Your task to perform on an android device: Add "logitech g502" to the cart on target Image 0: 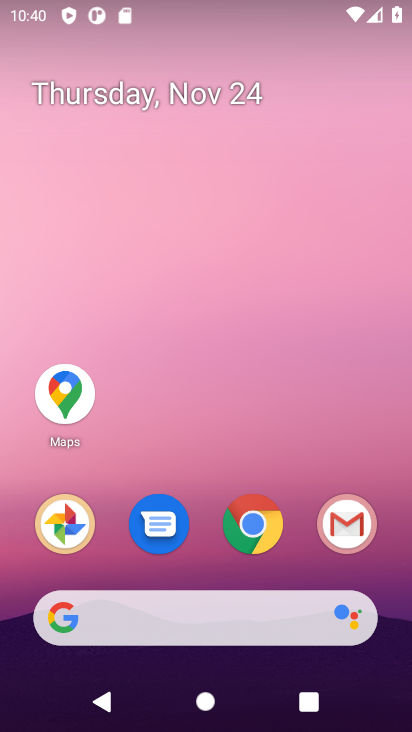
Step 0: click (254, 535)
Your task to perform on an android device: Add "logitech g502" to the cart on target Image 1: 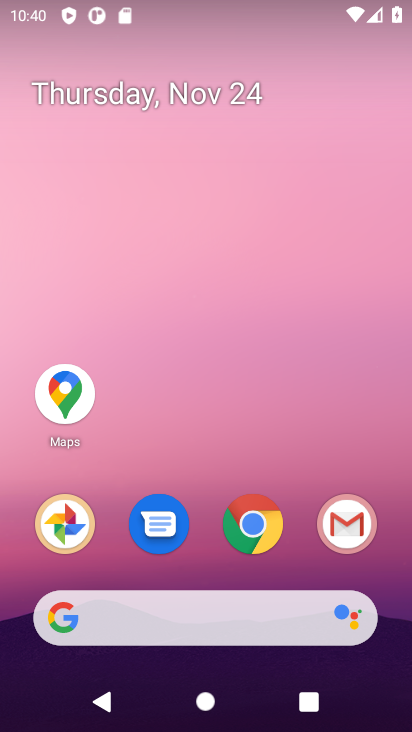
Step 1: click (254, 535)
Your task to perform on an android device: Add "logitech g502" to the cart on target Image 2: 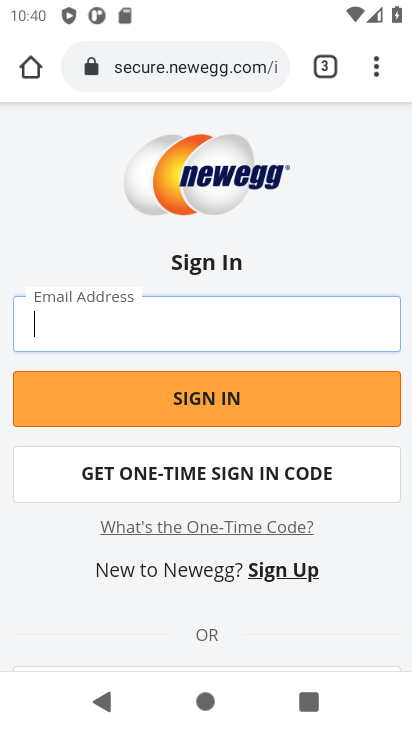
Step 2: click (166, 67)
Your task to perform on an android device: Add "logitech g502" to the cart on target Image 3: 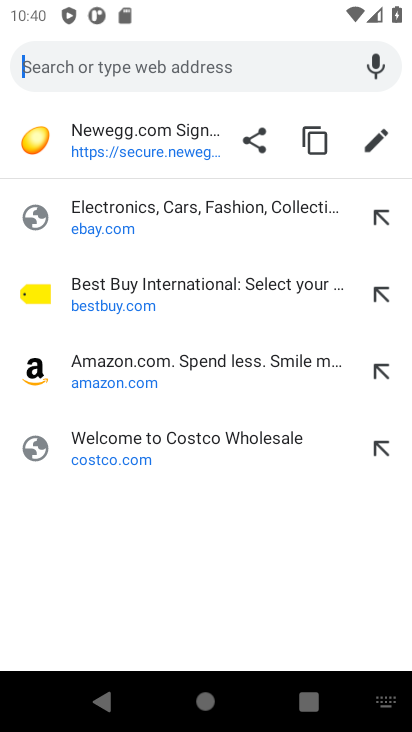
Step 3: type "target.com"
Your task to perform on an android device: Add "logitech g502" to the cart on target Image 4: 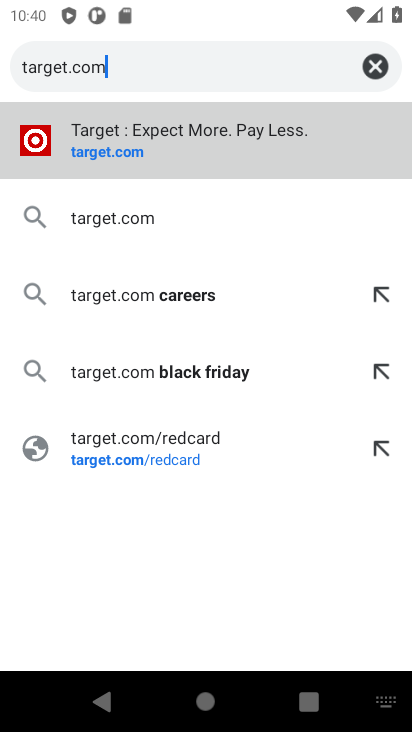
Step 4: click (72, 144)
Your task to perform on an android device: Add "logitech g502" to the cart on target Image 5: 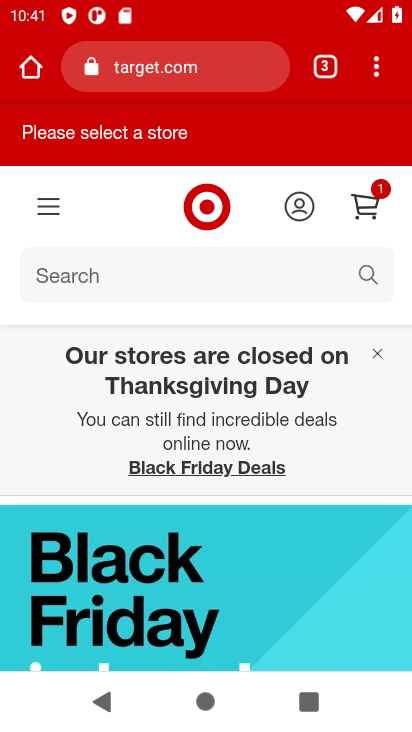
Step 5: click (349, 273)
Your task to perform on an android device: Add "logitech g502" to the cart on target Image 6: 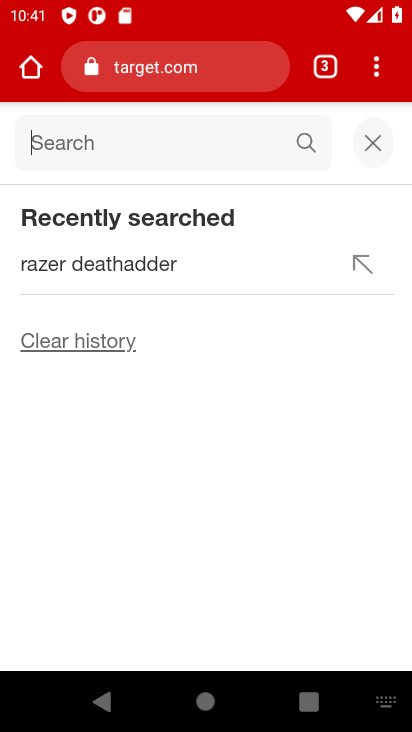
Step 6: type "logitech g502"
Your task to perform on an android device: Add "logitech g502" to the cart on target Image 7: 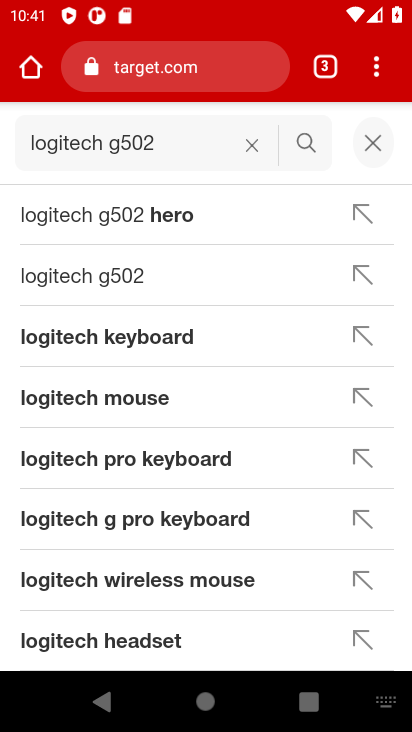
Step 7: click (62, 277)
Your task to perform on an android device: Add "logitech g502" to the cart on target Image 8: 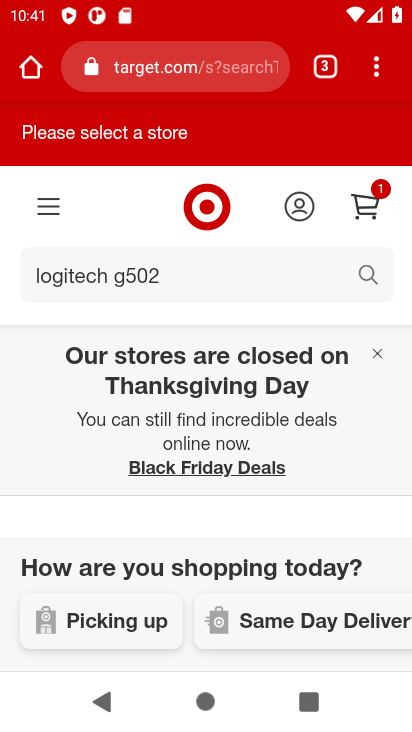
Step 8: drag from (127, 427) to (114, 157)
Your task to perform on an android device: Add "logitech g502" to the cart on target Image 9: 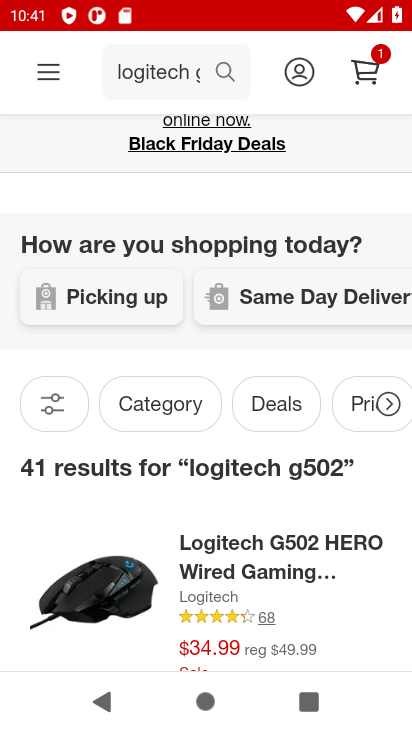
Step 9: drag from (93, 430) to (95, 202)
Your task to perform on an android device: Add "logitech g502" to the cart on target Image 10: 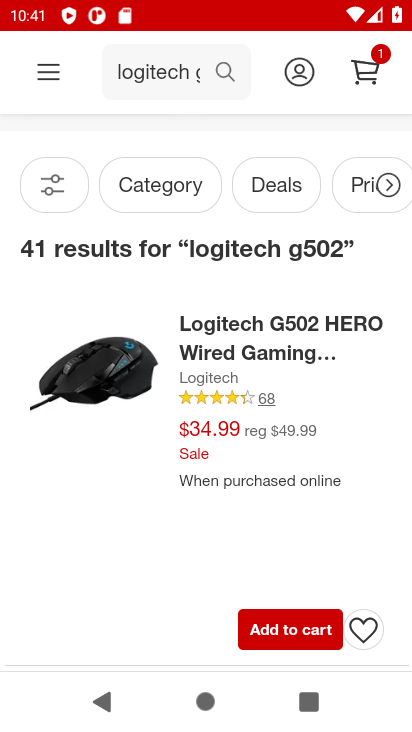
Step 10: click (285, 624)
Your task to perform on an android device: Add "logitech g502" to the cart on target Image 11: 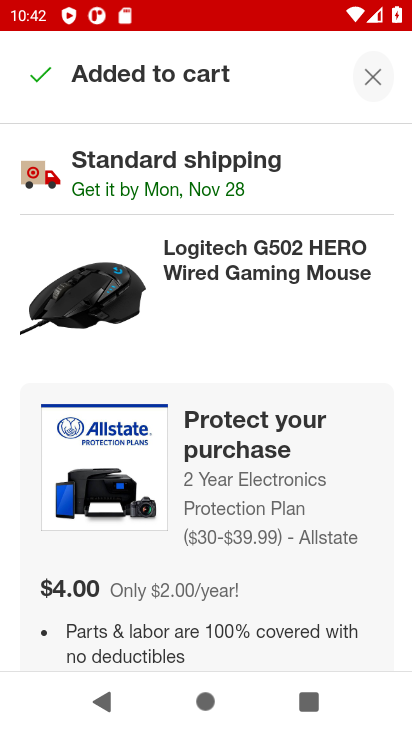
Step 11: task complete